Your task to perform on an android device: turn off picture-in-picture Image 0: 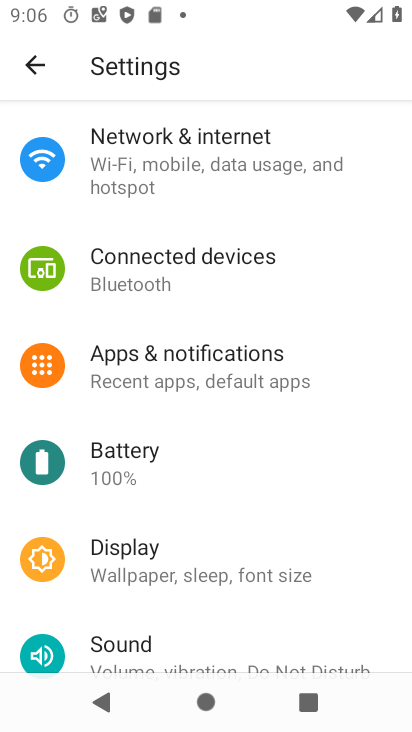
Step 0: press home button
Your task to perform on an android device: turn off picture-in-picture Image 1: 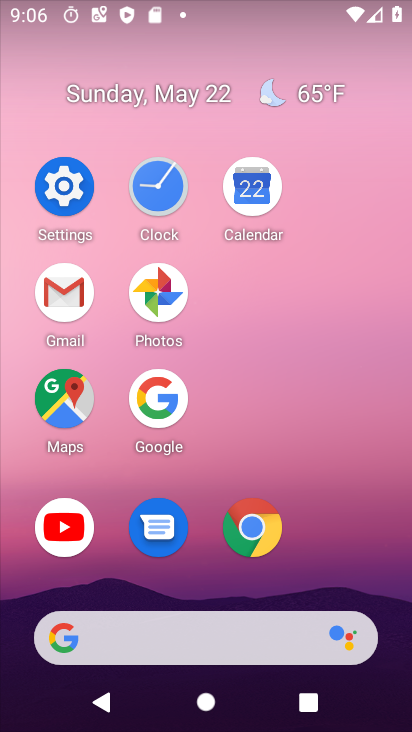
Step 1: click (248, 526)
Your task to perform on an android device: turn off picture-in-picture Image 2: 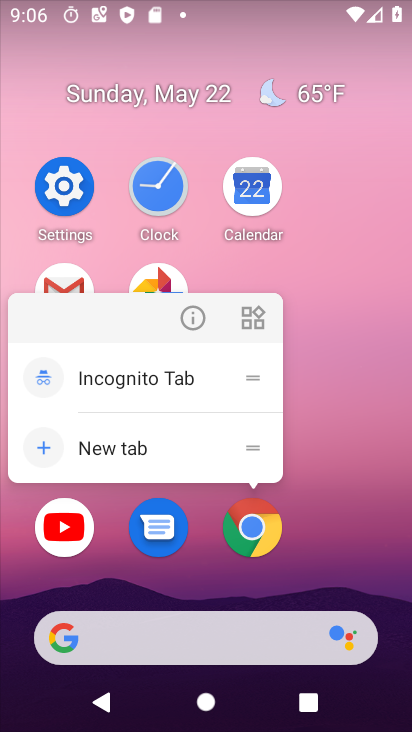
Step 2: click (194, 305)
Your task to perform on an android device: turn off picture-in-picture Image 3: 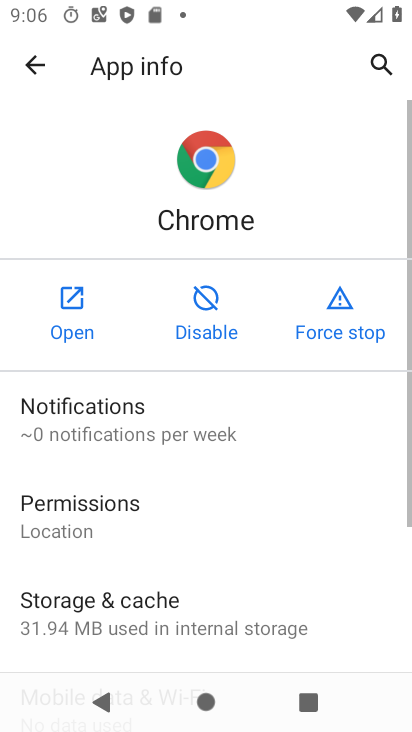
Step 3: drag from (282, 543) to (269, 131)
Your task to perform on an android device: turn off picture-in-picture Image 4: 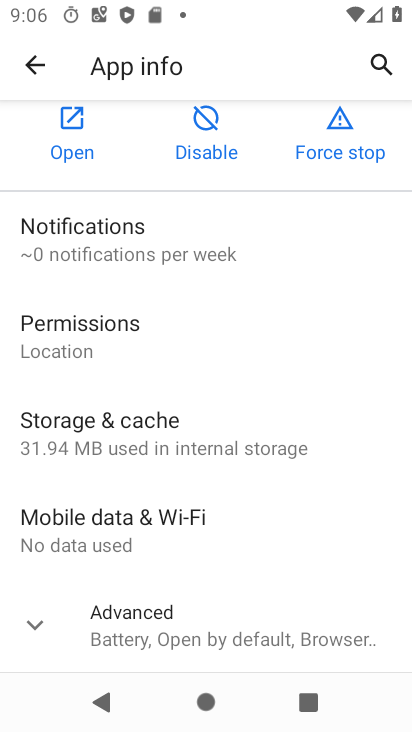
Step 4: click (235, 611)
Your task to perform on an android device: turn off picture-in-picture Image 5: 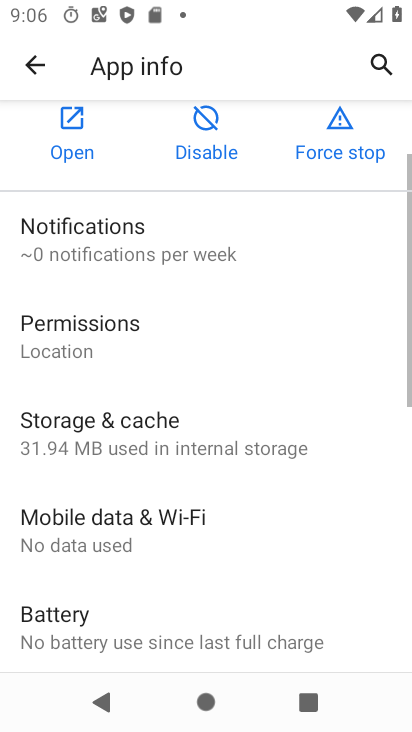
Step 5: drag from (234, 612) to (262, 156)
Your task to perform on an android device: turn off picture-in-picture Image 6: 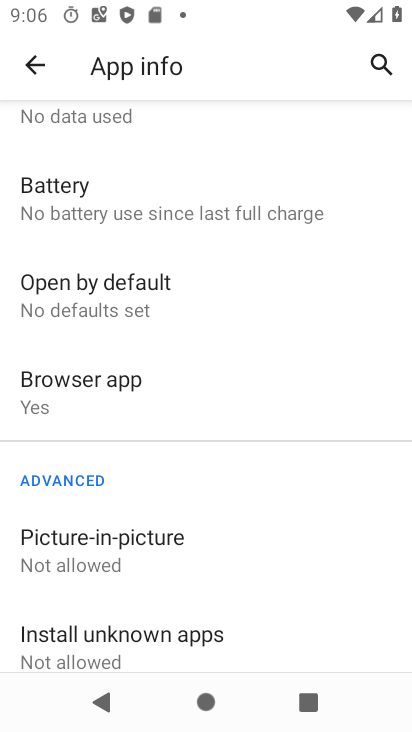
Step 6: click (265, 562)
Your task to perform on an android device: turn off picture-in-picture Image 7: 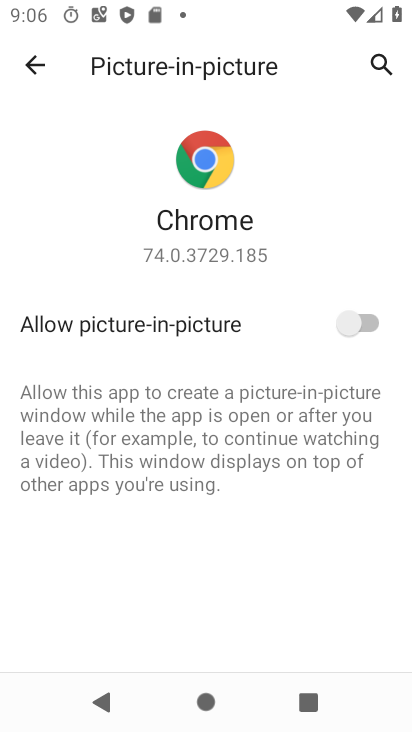
Step 7: task complete